Your task to perform on an android device: Open sound settings Image 0: 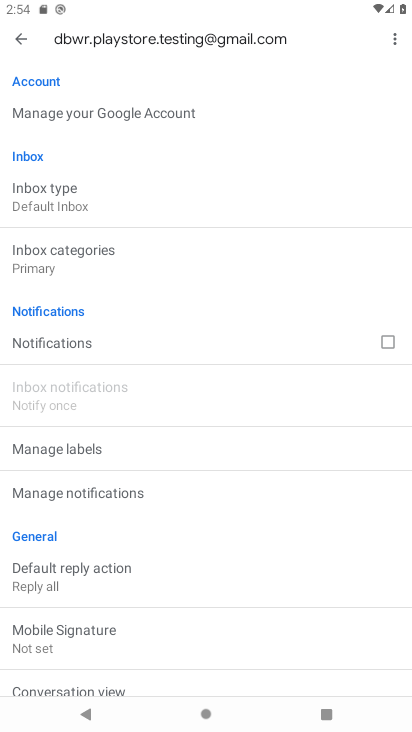
Step 0: press home button
Your task to perform on an android device: Open sound settings Image 1: 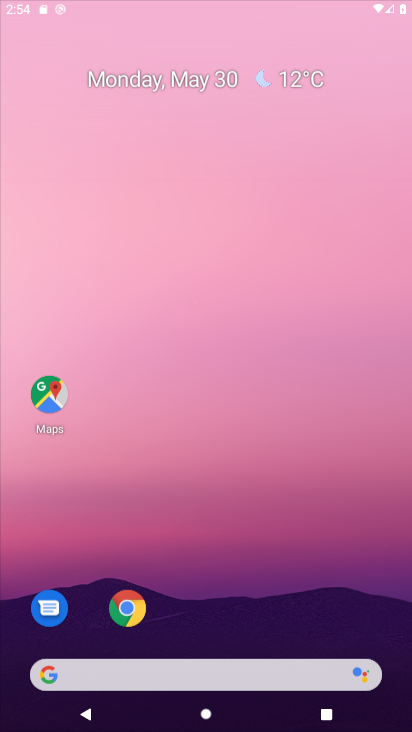
Step 1: drag from (269, 538) to (225, 111)
Your task to perform on an android device: Open sound settings Image 2: 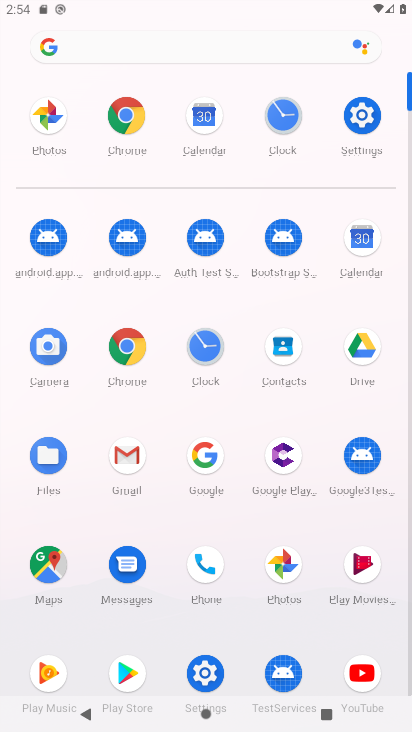
Step 2: click (353, 134)
Your task to perform on an android device: Open sound settings Image 3: 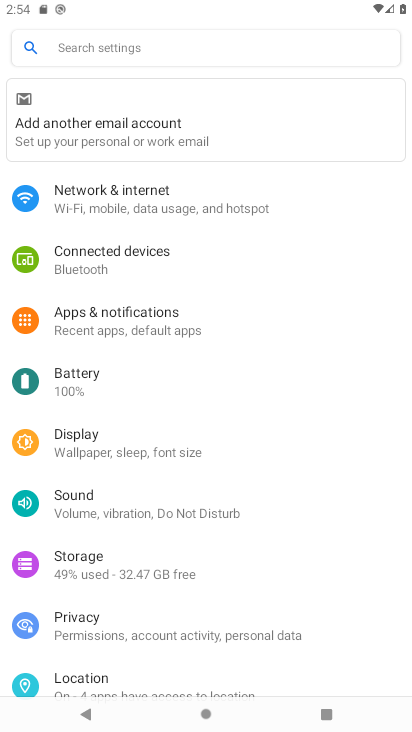
Step 3: click (148, 498)
Your task to perform on an android device: Open sound settings Image 4: 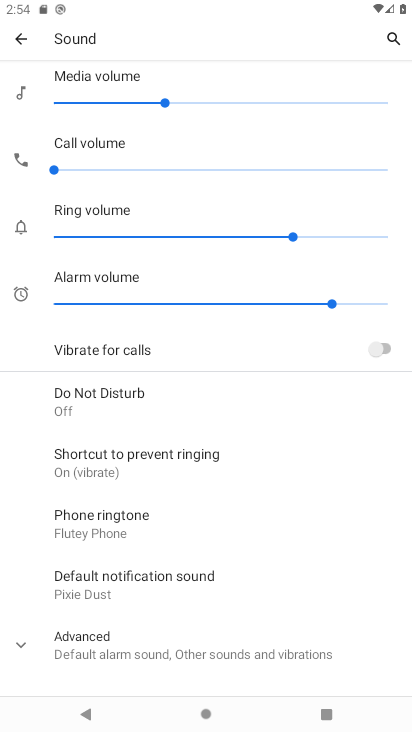
Step 4: task complete